Your task to perform on an android device: Open my contact list Image 0: 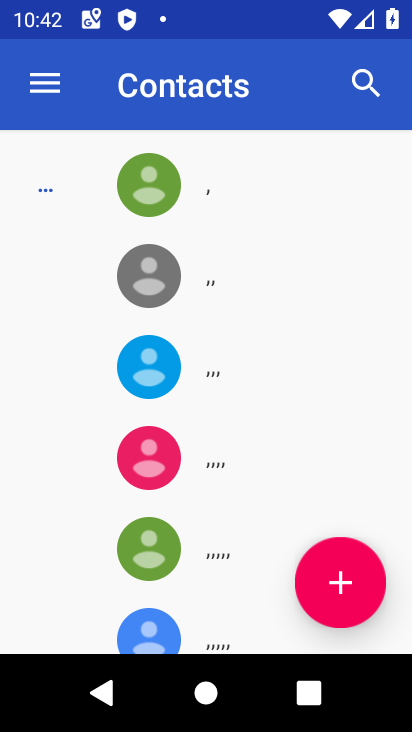
Step 0: drag from (187, 521) to (187, 223)
Your task to perform on an android device: Open my contact list Image 1: 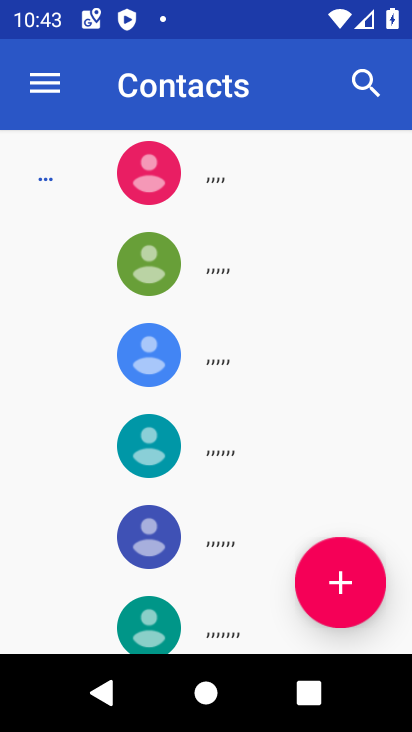
Step 1: task complete